Your task to perform on an android device: What's the weather going to be this weekend? Image 0: 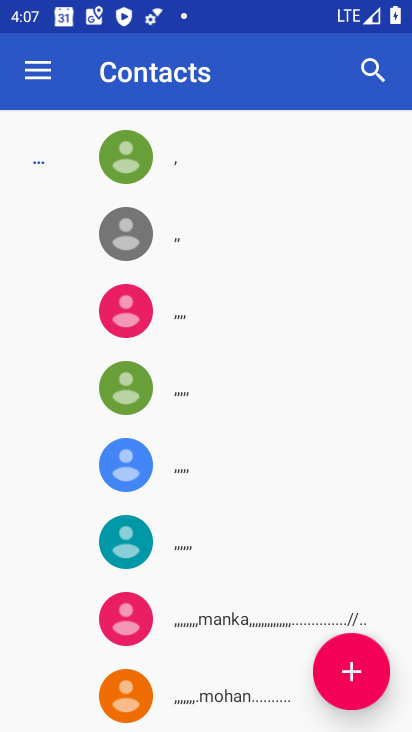
Step 0: press home button
Your task to perform on an android device: What's the weather going to be this weekend? Image 1: 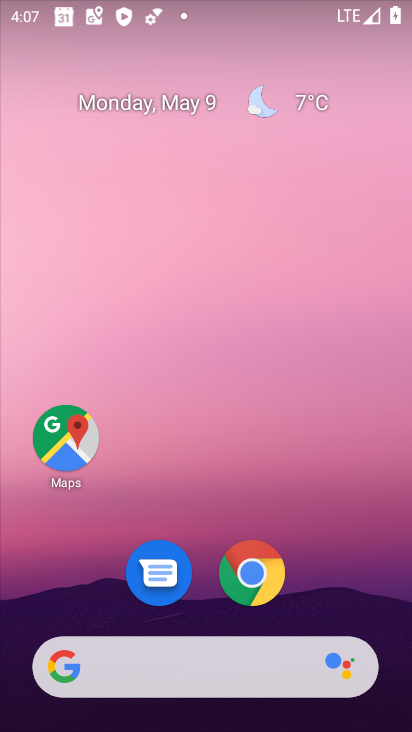
Step 1: click (307, 99)
Your task to perform on an android device: What's the weather going to be this weekend? Image 2: 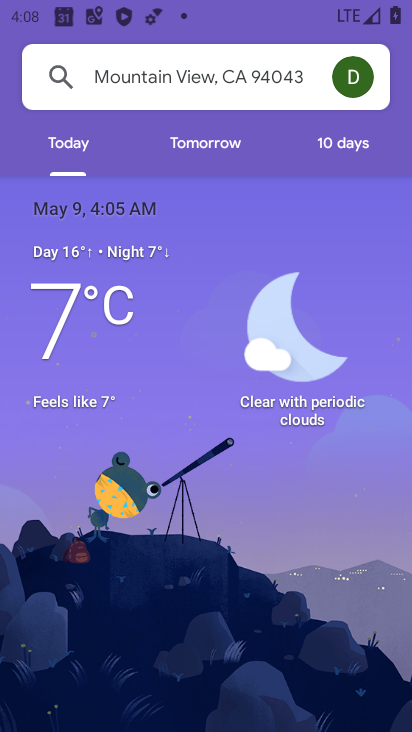
Step 2: click (356, 147)
Your task to perform on an android device: What's the weather going to be this weekend? Image 3: 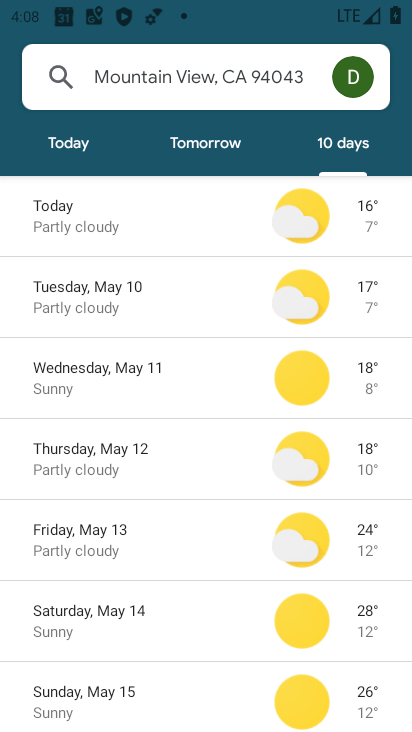
Step 3: task complete